Your task to perform on an android device: turn off translation in the chrome app Image 0: 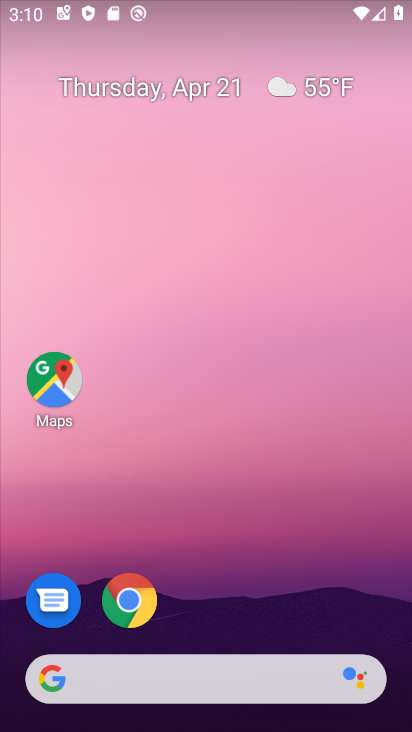
Step 0: drag from (176, 673) to (296, 118)
Your task to perform on an android device: turn off translation in the chrome app Image 1: 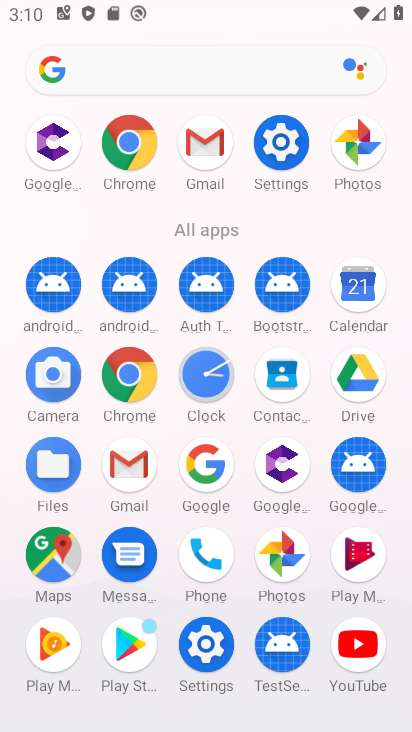
Step 1: click (141, 157)
Your task to perform on an android device: turn off translation in the chrome app Image 2: 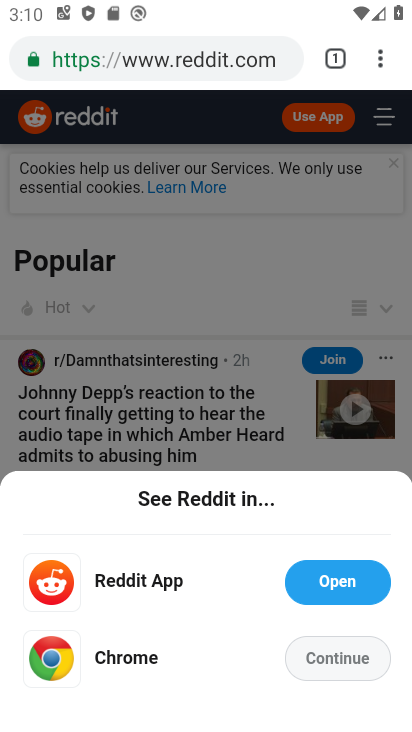
Step 2: click (374, 67)
Your task to perform on an android device: turn off translation in the chrome app Image 3: 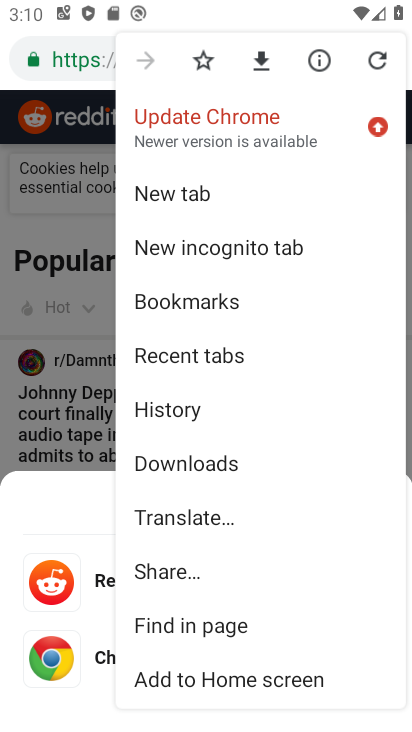
Step 3: drag from (262, 553) to (361, 200)
Your task to perform on an android device: turn off translation in the chrome app Image 4: 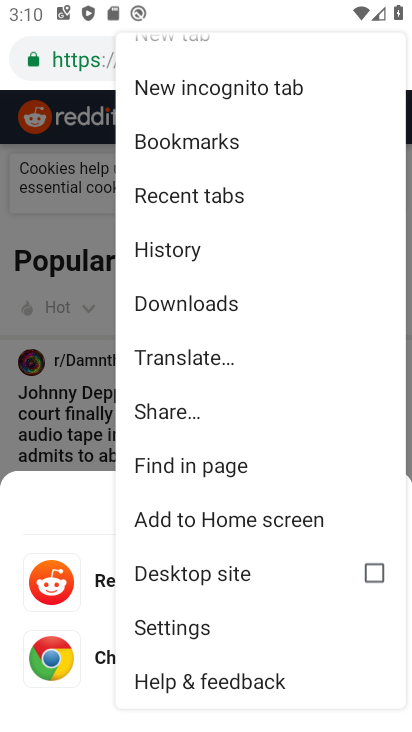
Step 4: click (186, 632)
Your task to perform on an android device: turn off translation in the chrome app Image 5: 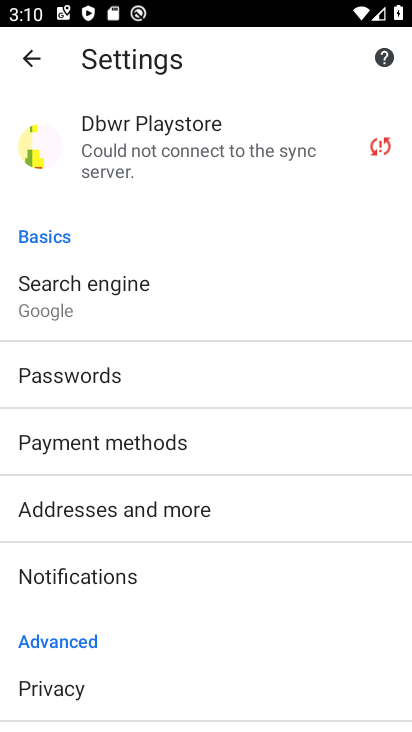
Step 5: drag from (180, 592) to (345, 237)
Your task to perform on an android device: turn off translation in the chrome app Image 6: 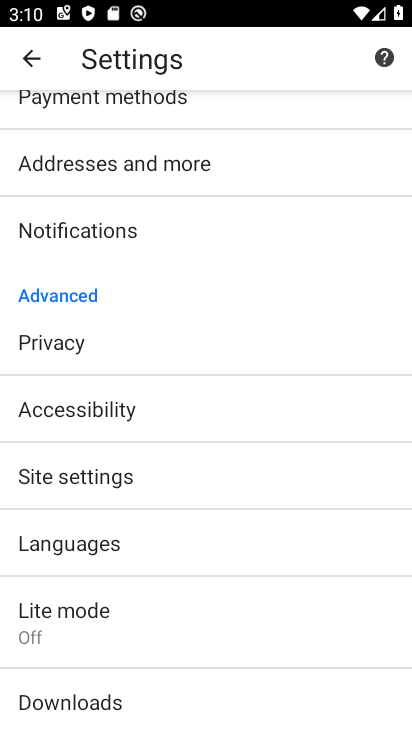
Step 6: click (87, 546)
Your task to perform on an android device: turn off translation in the chrome app Image 7: 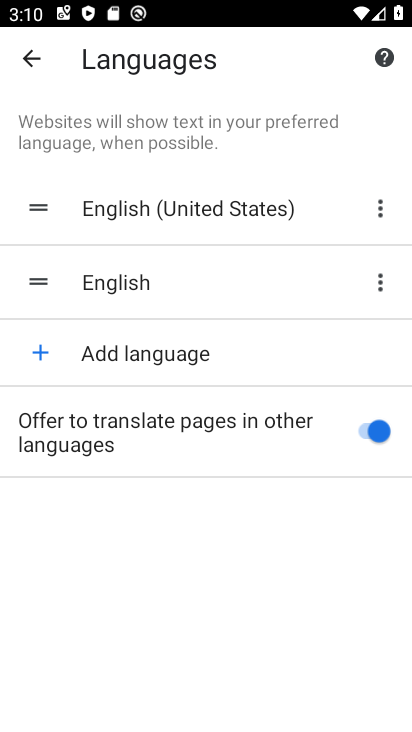
Step 7: click (363, 433)
Your task to perform on an android device: turn off translation in the chrome app Image 8: 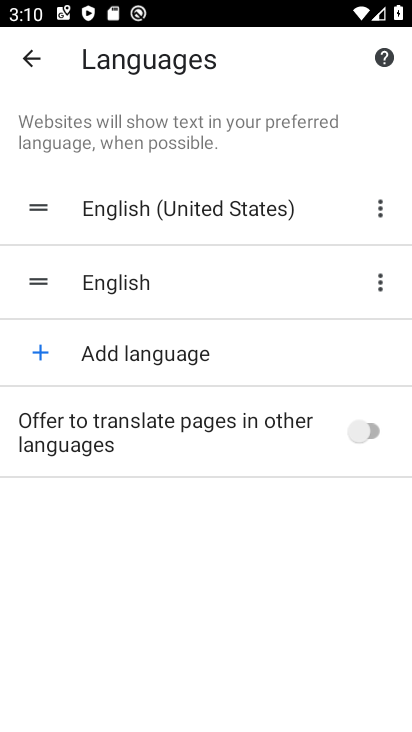
Step 8: task complete